Your task to perform on an android device: Go to location settings Image 0: 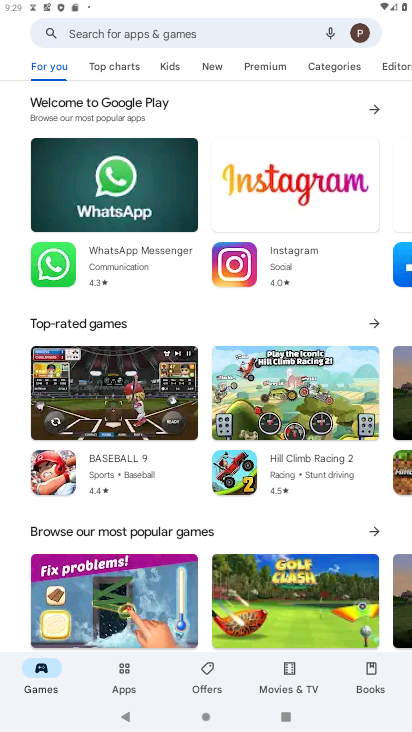
Step 0: press home button
Your task to perform on an android device: Go to location settings Image 1: 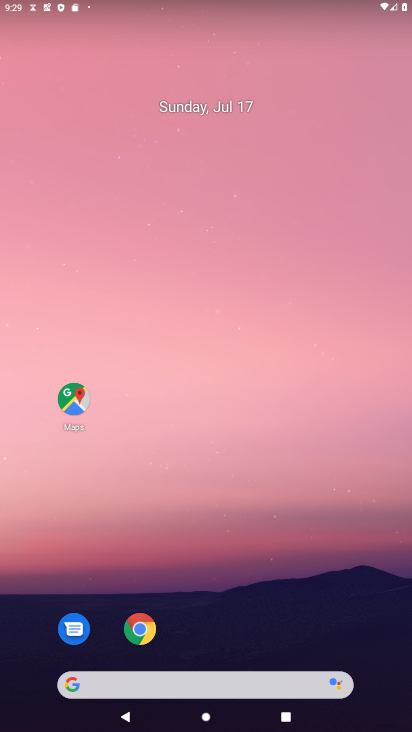
Step 1: drag from (232, 728) to (230, 116)
Your task to perform on an android device: Go to location settings Image 2: 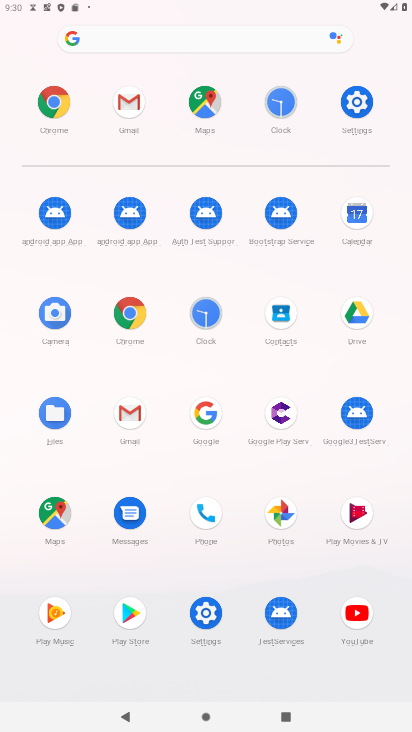
Step 2: click (353, 104)
Your task to perform on an android device: Go to location settings Image 3: 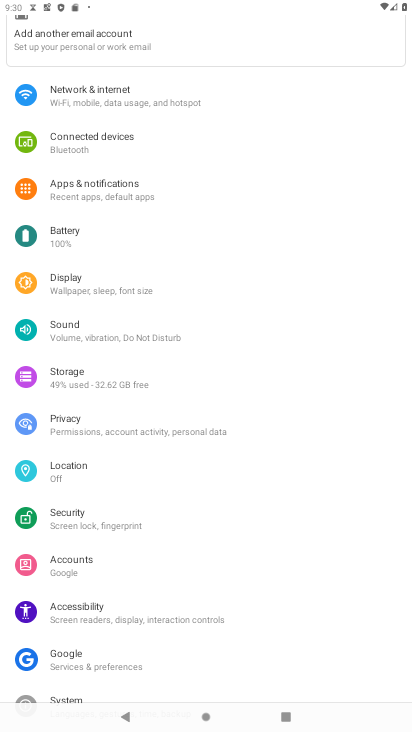
Step 3: click (69, 467)
Your task to perform on an android device: Go to location settings Image 4: 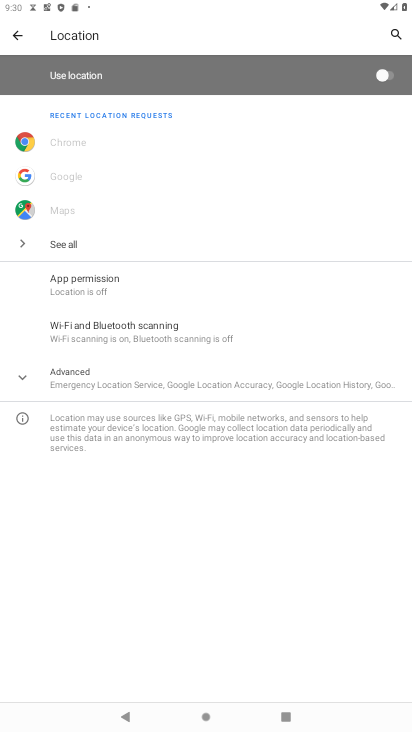
Step 4: task complete